Your task to perform on an android device: Open Chrome and go to settings Image 0: 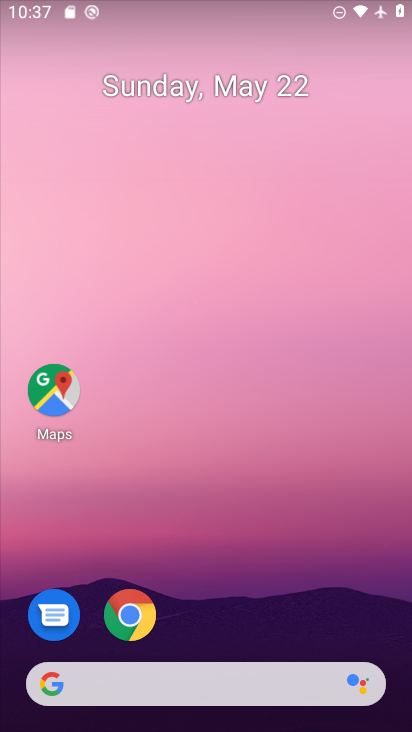
Step 0: click (130, 622)
Your task to perform on an android device: Open Chrome and go to settings Image 1: 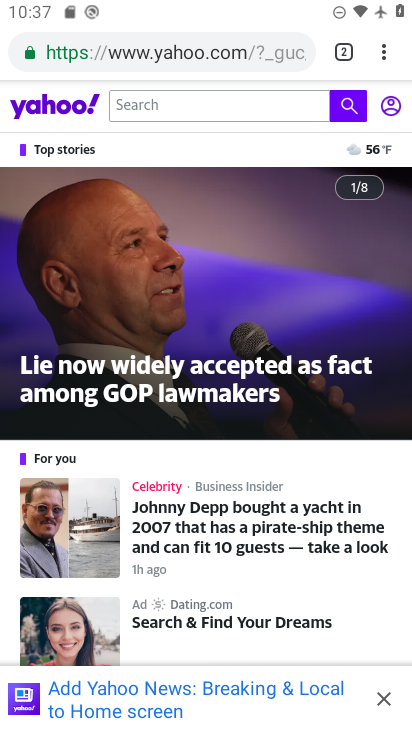
Step 1: task complete